Your task to perform on an android device: check storage Image 0: 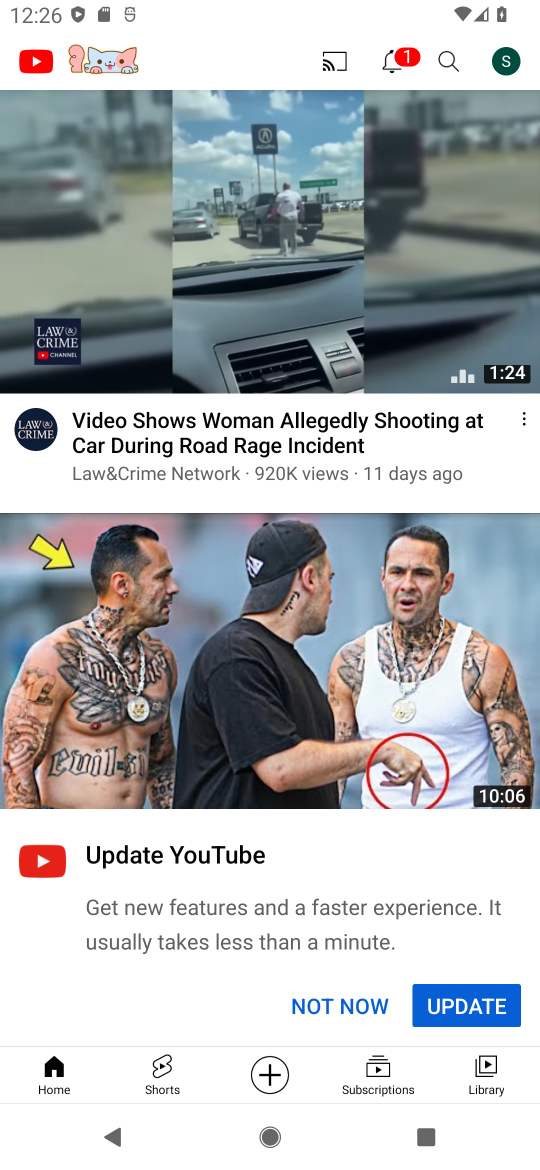
Step 0: press home button
Your task to perform on an android device: check storage Image 1: 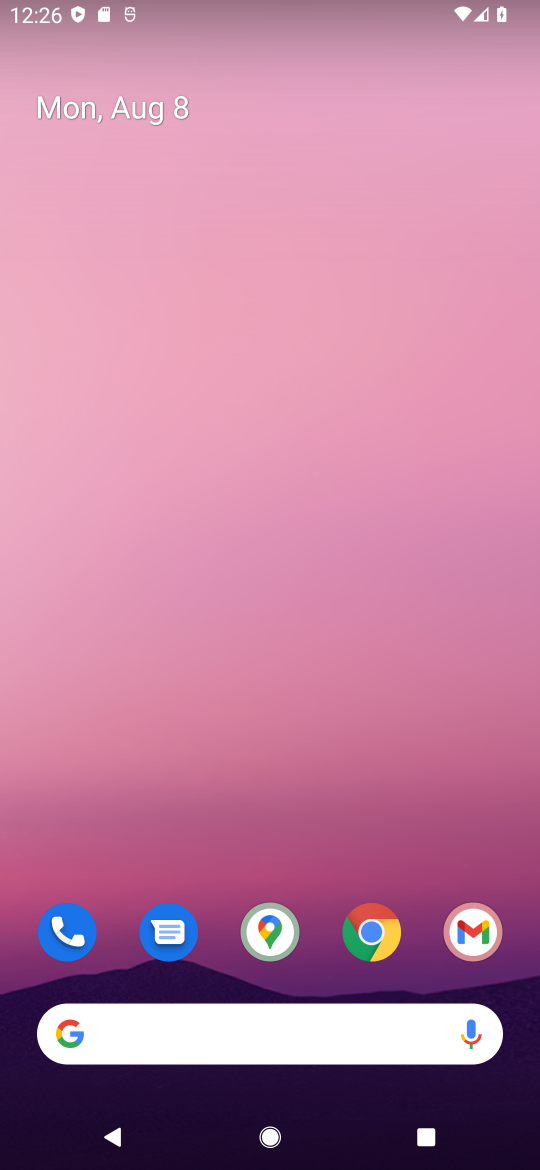
Step 1: click (377, 919)
Your task to perform on an android device: check storage Image 2: 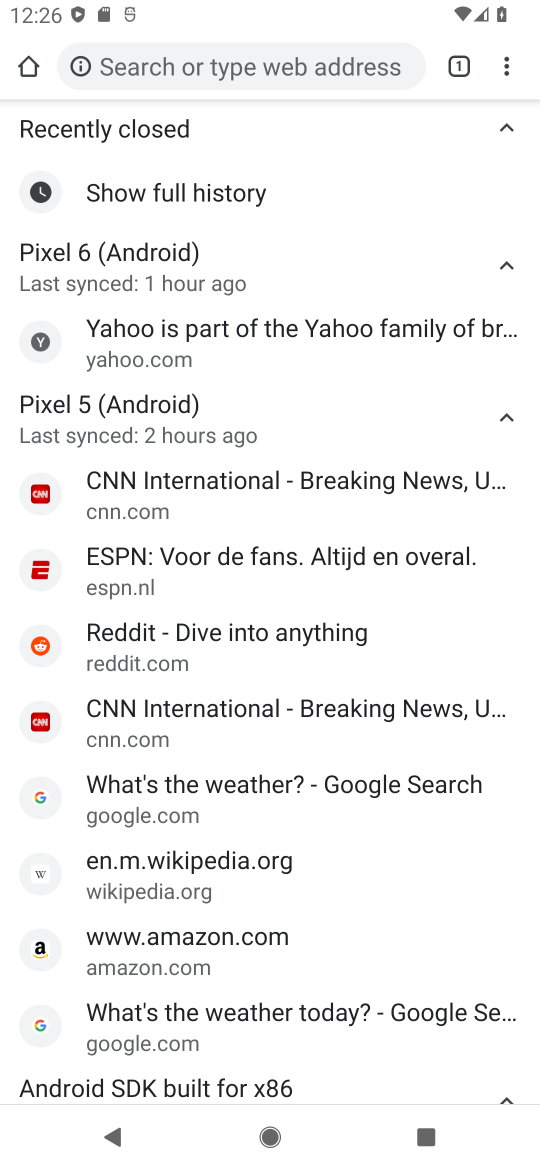
Step 2: press home button
Your task to perform on an android device: check storage Image 3: 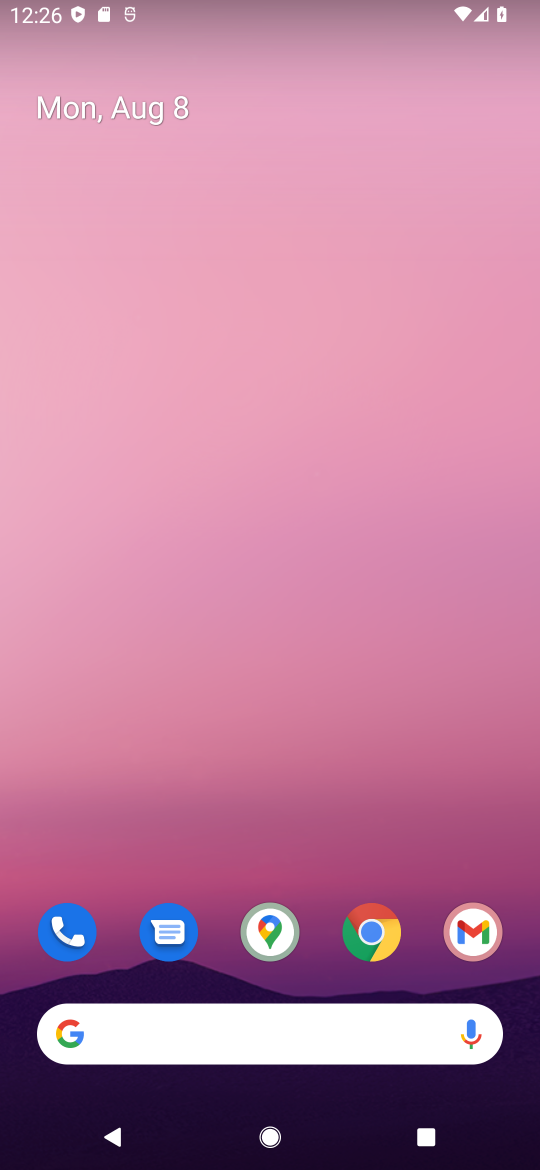
Step 3: drag from (281, 842) to (238, 26)
Your task to perform on an android device: check storage Image 4: 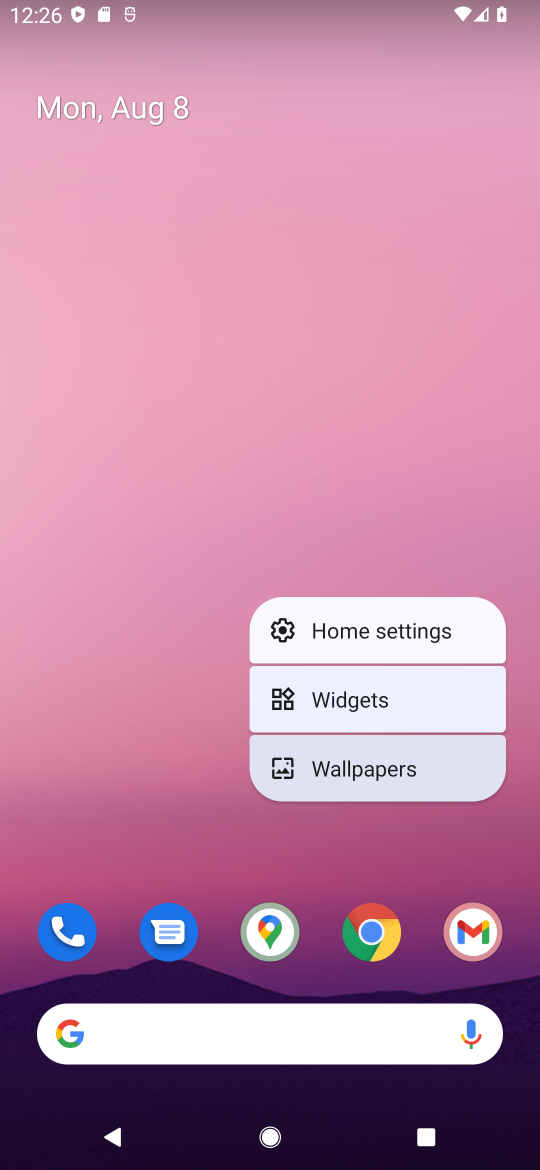
Step 4: drag from (189, 872) to (250, 79)
Your task to perform on an android device: check storage Image 5: 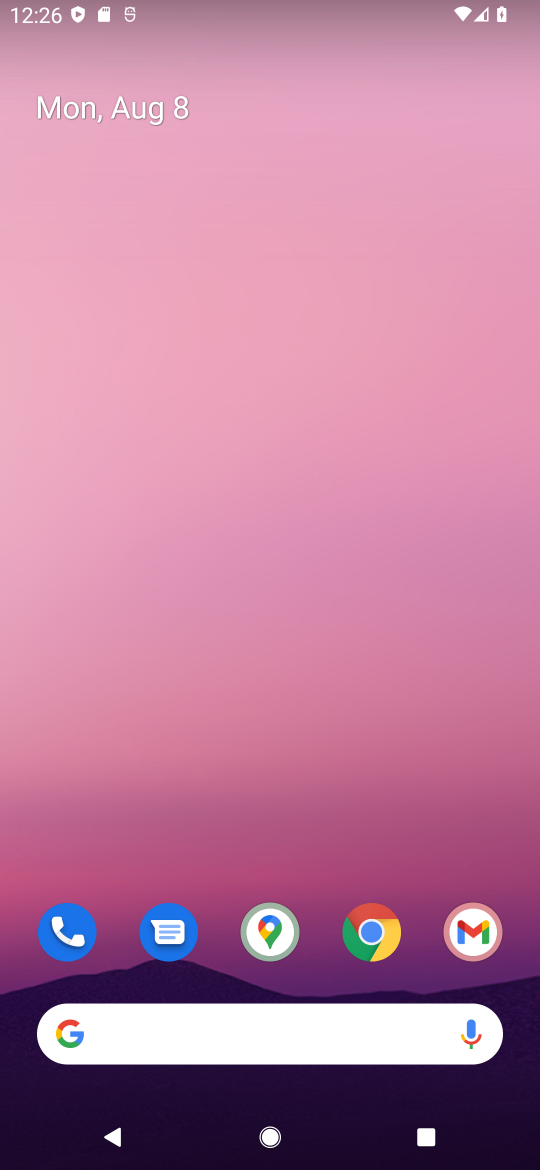
Step 5: drag from (308, 904) to (238, 57)
Your task to perform on an android device: check storage Image 6: 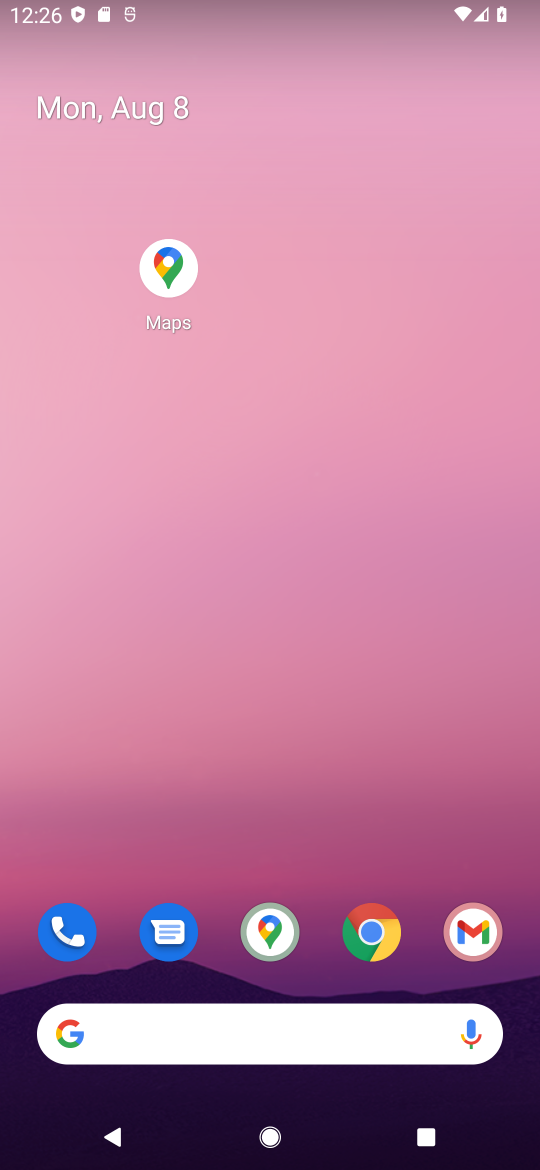
Step 6: drag from (316, 895) to (277, 67)
Your task to perform on an android device: check storage Image 7: 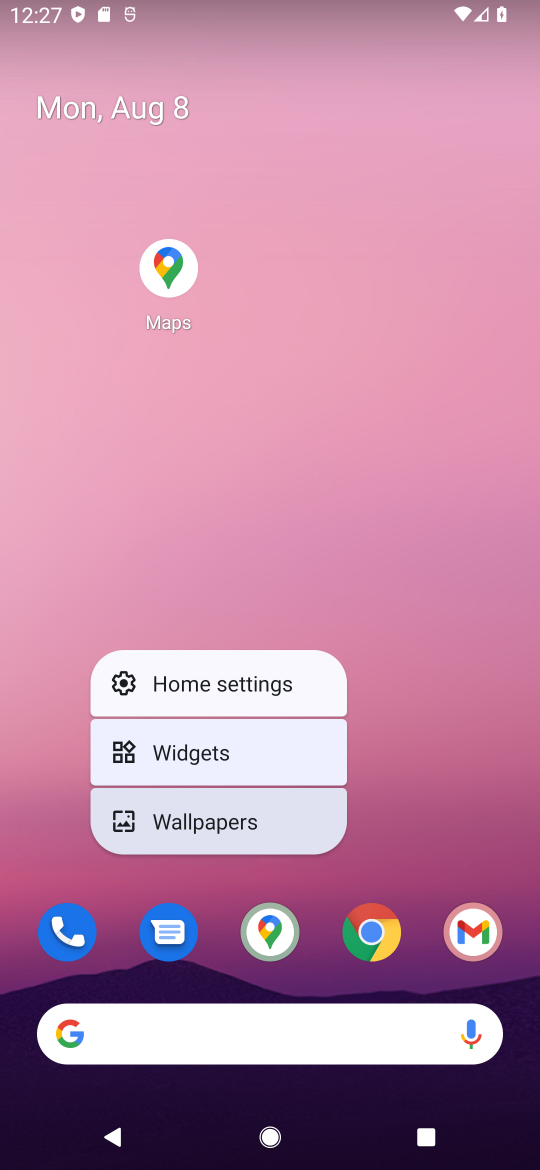
Step 7: click (434, 891)
Your task to perform on an android device: check storage Image 8: 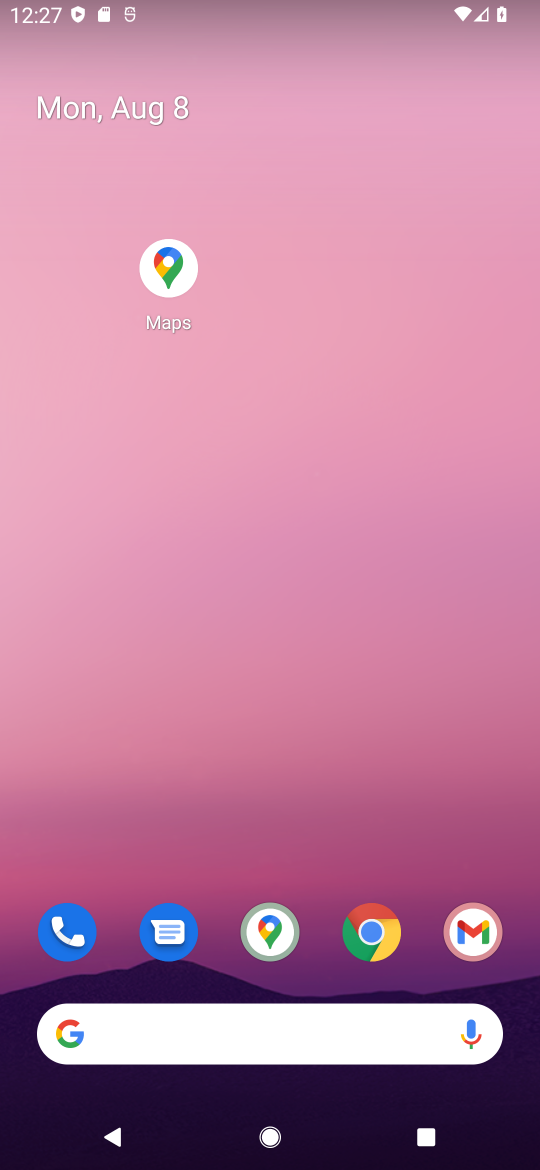
Step 8: drag from (434, 891) to (376, 257)
Your task to perform on an android device: check storage Image 9: 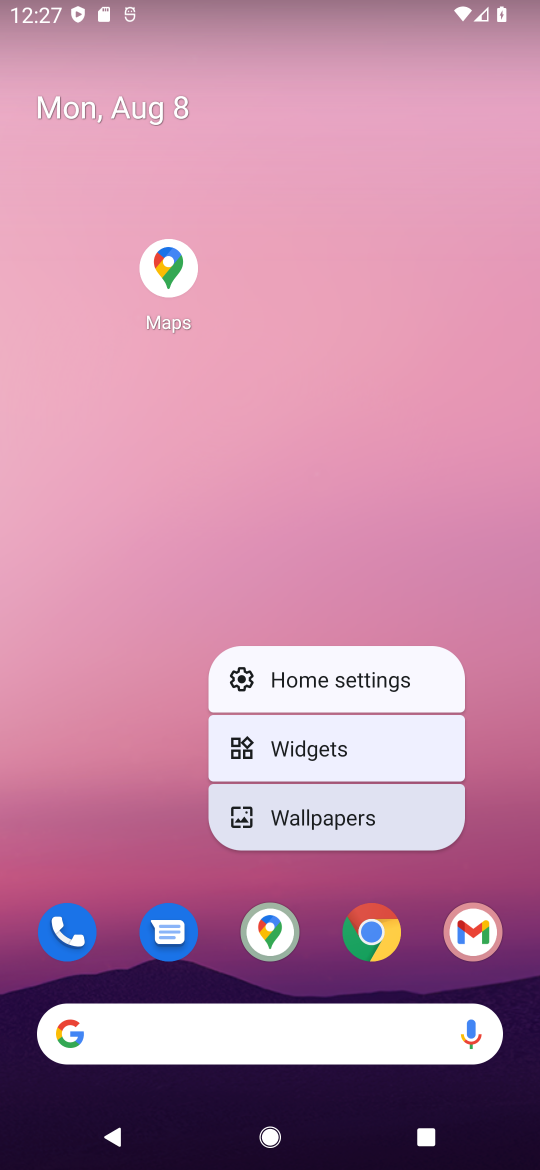
Step 9: drag from (217, 972) to (296, 204)
Your task to perform on an android device: check storage Image 10: 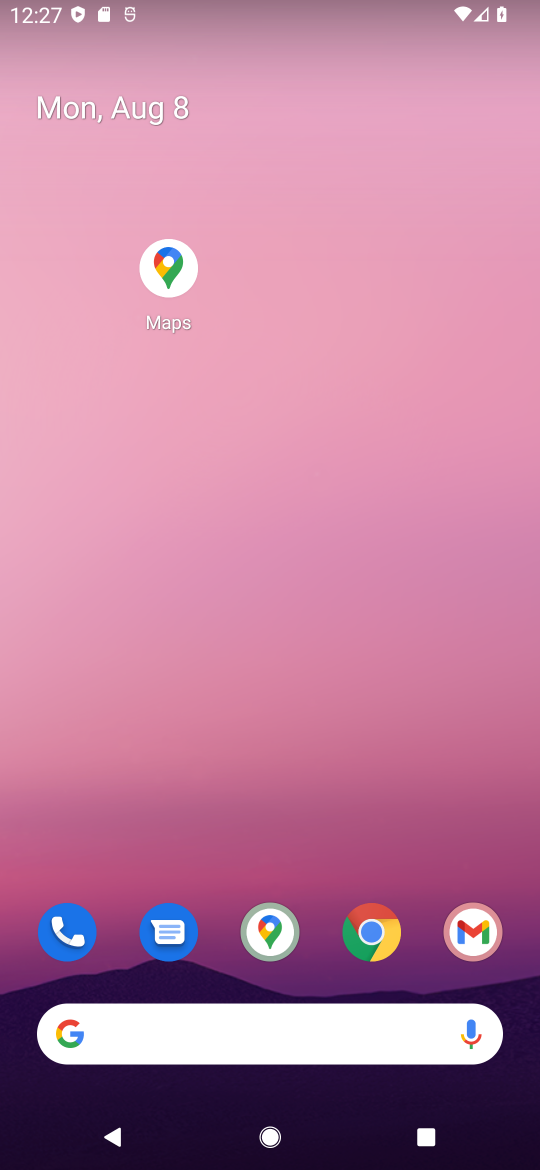
Step 10: drag from (321, 985) to (274, 161)
Your task to perform on an android device: check storage Image 11: 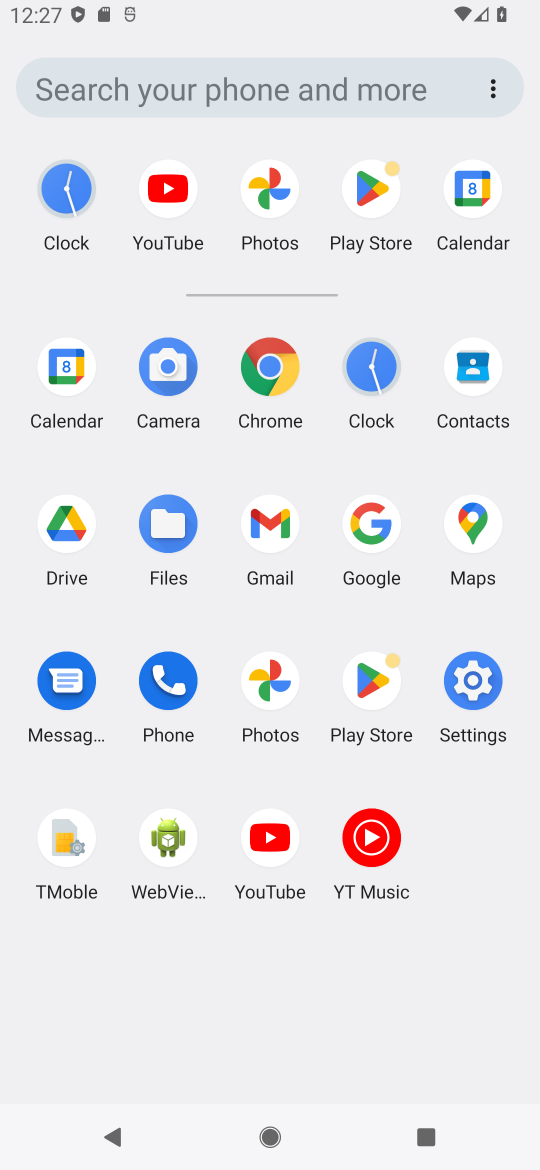
Step 11: click (463, 695)
Your task to perform on an android device: check storage Image 12: 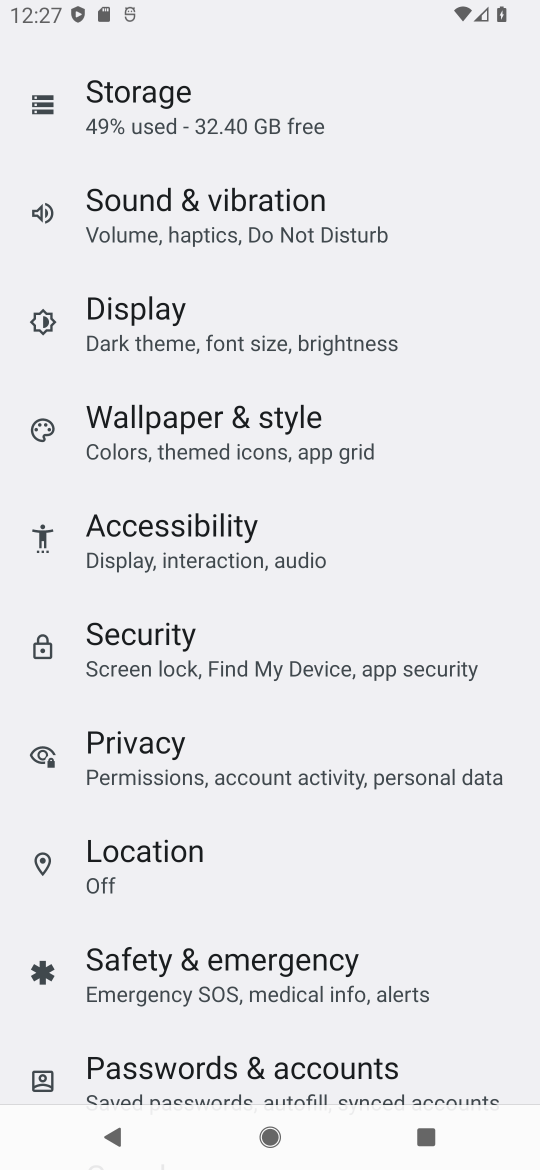
Step 12: click (217, 107)
Your task to perform on an android device: check storage Image 13: 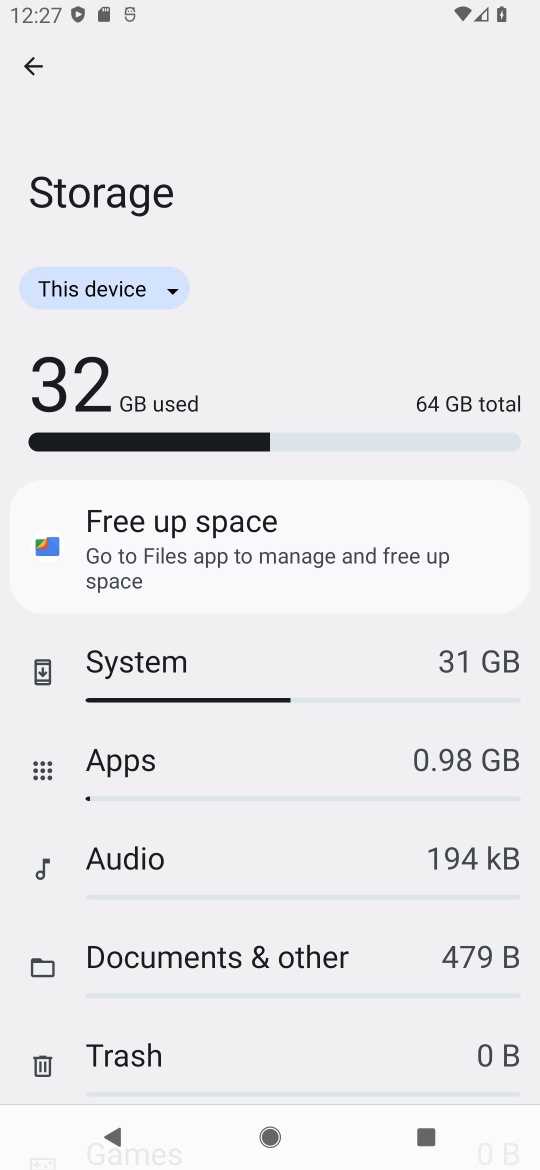
Step 13: task complete